Your task to perform on an android device: Go to Google Image 0: 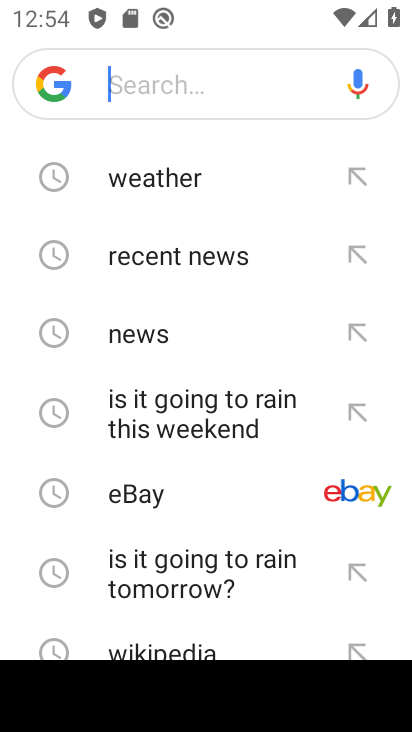
Step 0: press home button
Your task to perform on an android device: Go to Google Image 1: 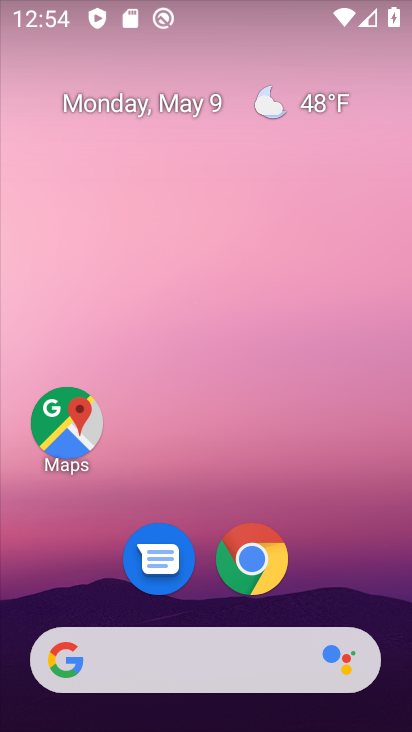
Step 1: drag from (204, 636) to (262, 136)
Your task to perform on an android device: Go to Google Image 2: 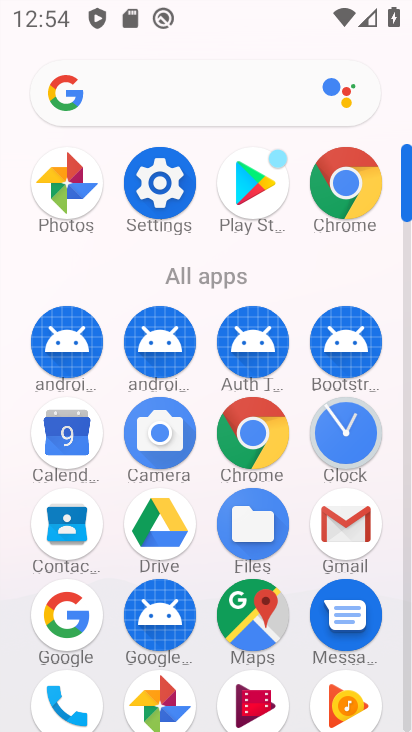
Step 2: drag from (213, 666) to (224, 188)
Your task to perform on an android device: Go to Google Image 3: 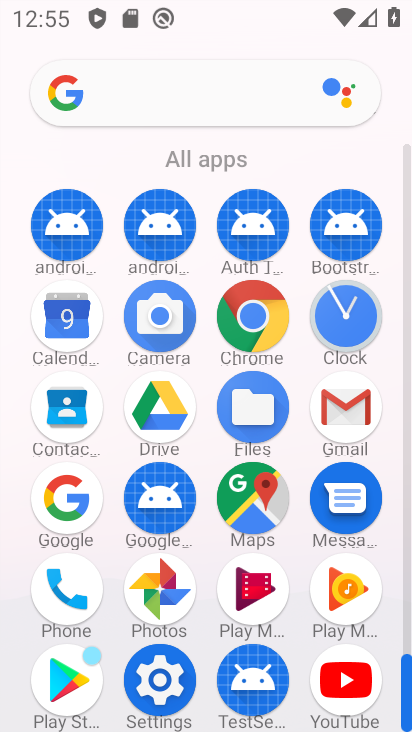
Step 3: click (68, 498)
Your task to perform on an android device: Go to Google Image 4: 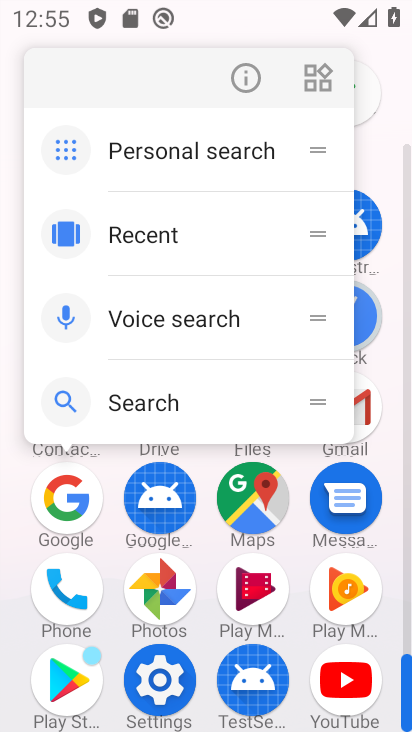
Step 4: click (236, 69)
Your task to perform on an android device: Go to Google Image 5: 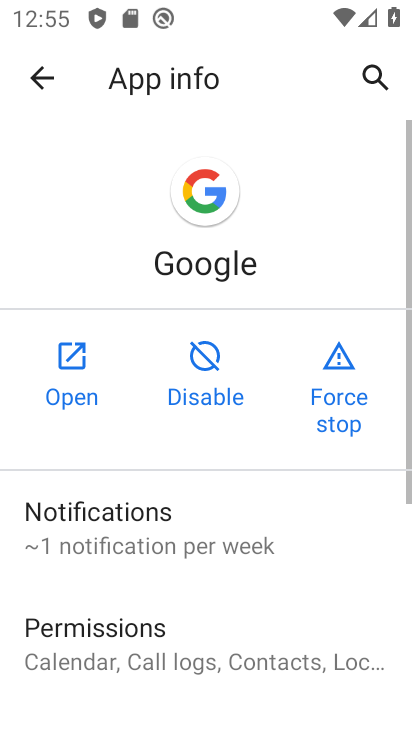
Step 5: click (72, 372)
Your task to perform on an android device: Go to Google Image 6: 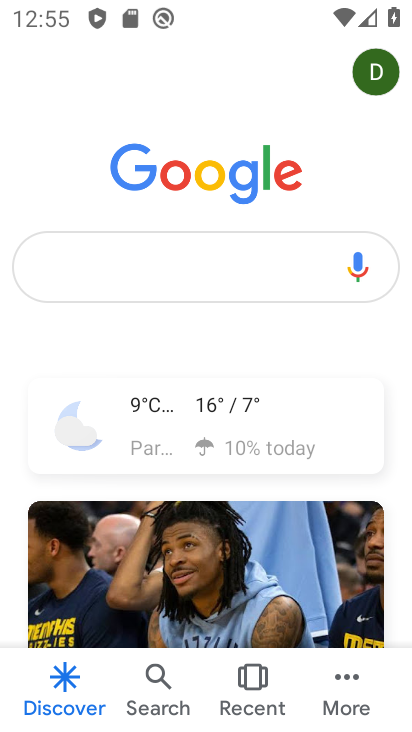
Step 6: drag from (218, 555) to (298, 114)
Your task to perform on an android device: Go to Google Image 7: 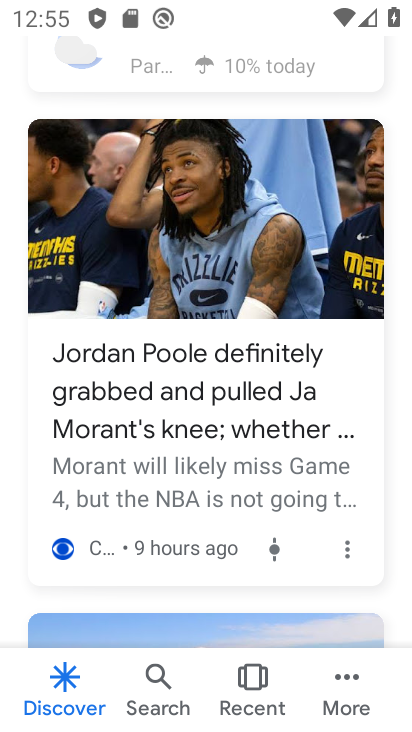
Step 7: drag from (235, 567) to (258, 216)
Your task to perform on an android device: Go to Google Image 8: 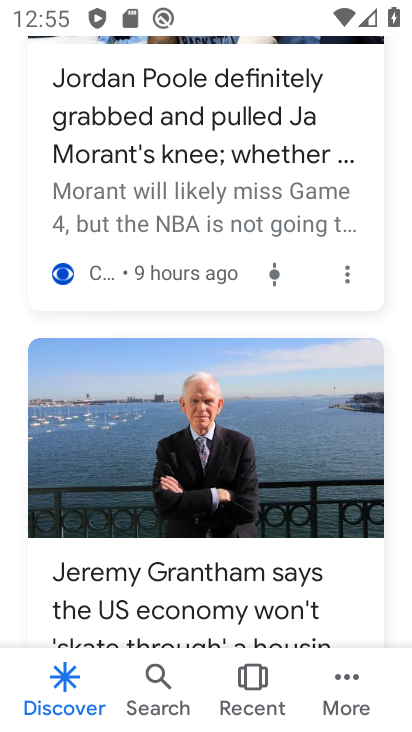
Step 8: drag from (201, 559) to (266, 230)
Your task to perform on an android device: Go to Google Image 9: 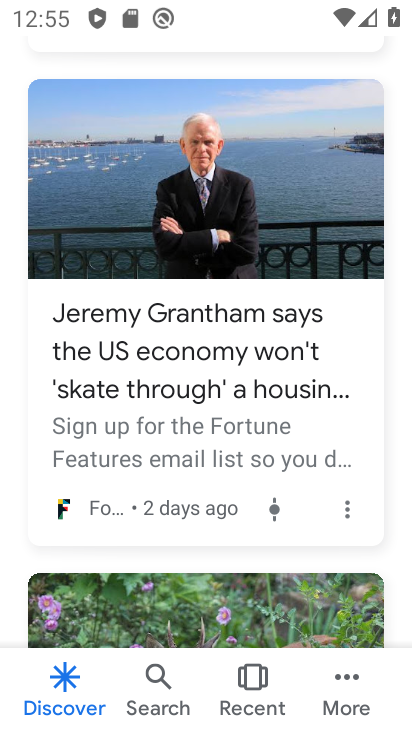
Step 9: click (262, 279)
Your task to perform on an android device: Go to Google Image 10: 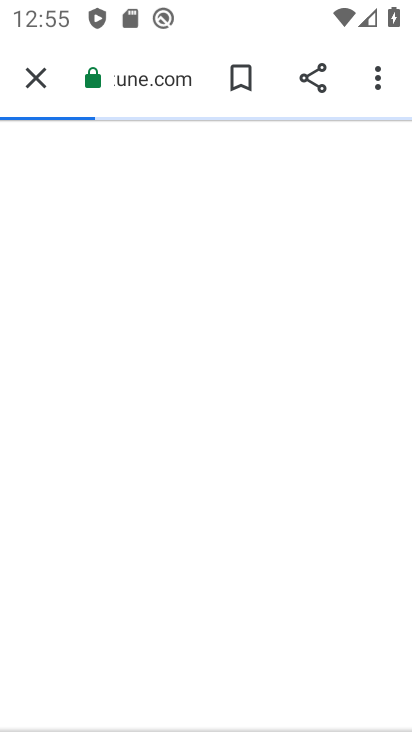
Step 10: task complete